Your task to perform on an android device: Open Chrome and go to the settings page Image 0: 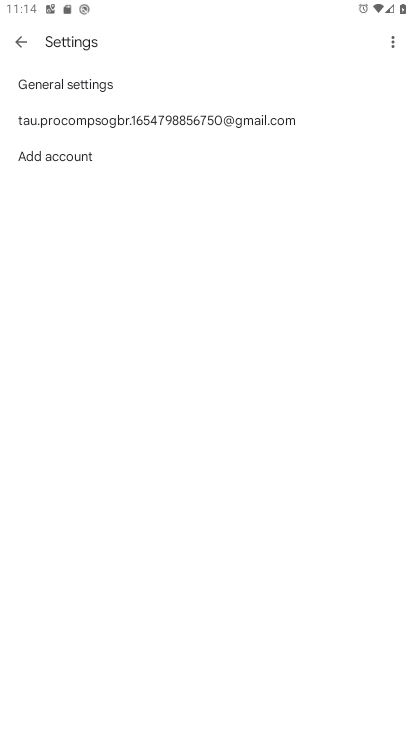
Step 0: press home button
Your task to perform on an android device: Open Chrome and go to the settings page Image 1: 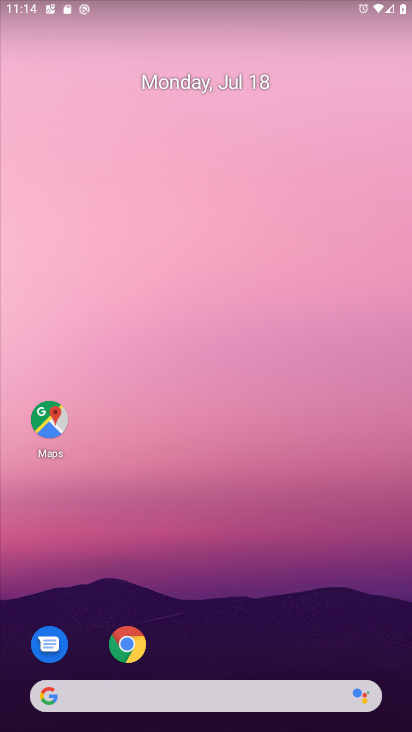
Step 1: click (141, 635)
Your task to perform on an android device: Open Chrome and go to the settings page Image 2: 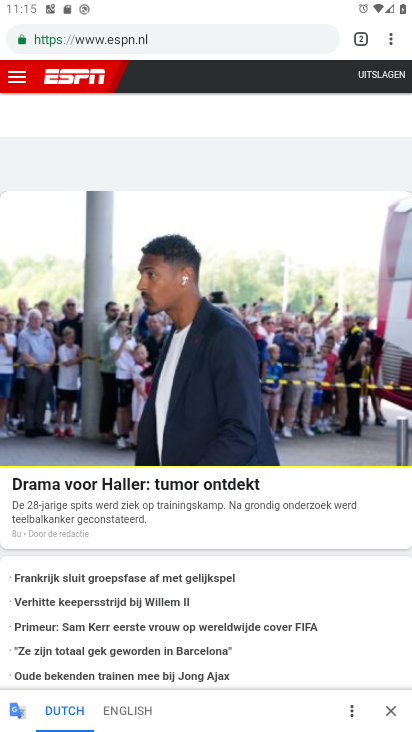
Step 2: click (389, 39)
Your task to perform on an android device: Open Chrome and go to the settings page Image 3: 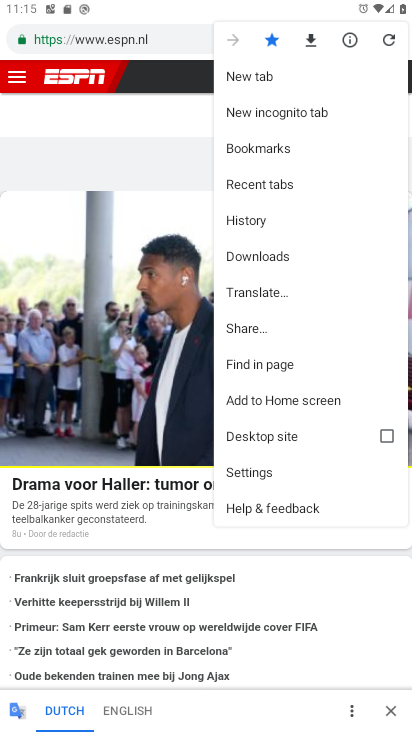
Step 3: click (249, 471)
Your task to perform on an android device: Open Chrome and go to the settings page Image 4: 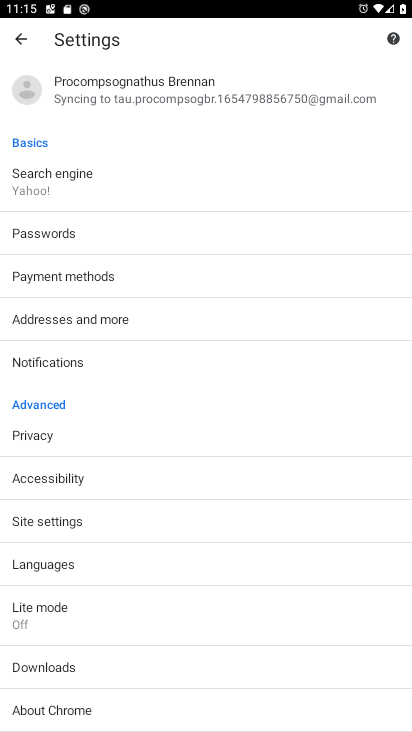
Step 4: task complete